Your task to perform on an android device: turn on priority inbox in the gmail app Image 0: 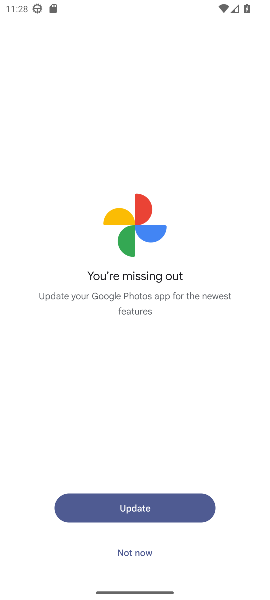
Step 0: press home button
Your task to perform on an android device: turn on priority inbox in the gmail app Image 1: 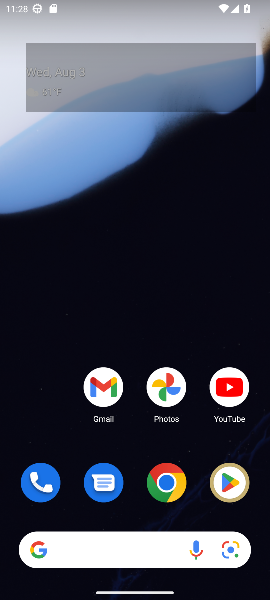
Step 1: drag from (135, 523) to (88, 97)
Your task to perform on an android device: turn on priority inbox in the gmail app Image 2: 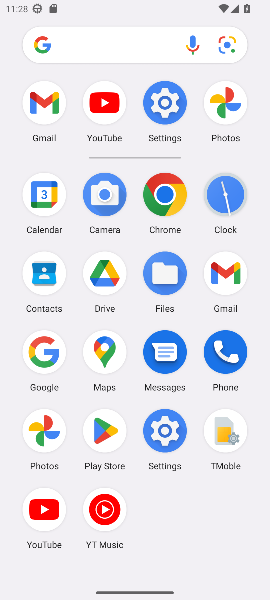
Step 2: click (41, 116)
Your task to perform on an android device: turn on priority inbox in the gmail app Image 3: 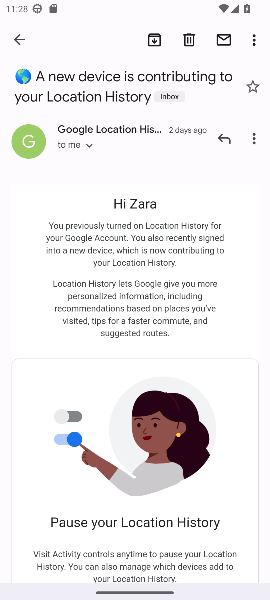
Step 3: click (20, 48)
Your task to perform on an android device: turn on priority inbox in the gmail app Image 4: 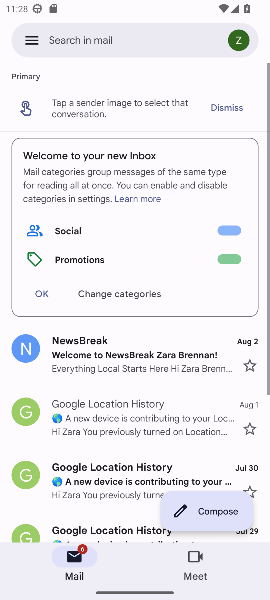
Step 4: click (20, 48)
Your task to perform on an android device: turn on priority inbox in the gmail app Image 5: 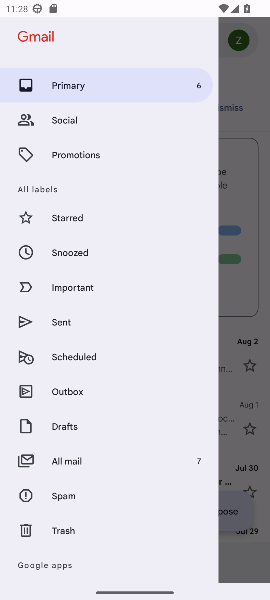
Step 5: drag from (88, 553) to (92, 326)
Your task to perform on an android device: turn on priority inbox in the gmail app Image 6: 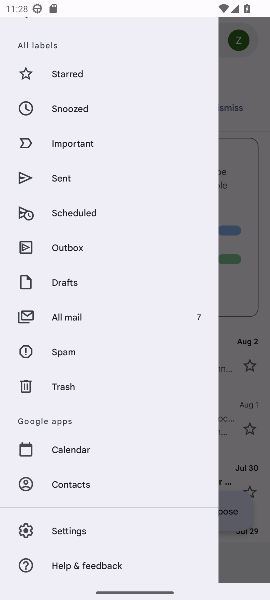
Step 6: click (78, 533)
Your task to perform on an android device: turn on priority inbox in the gmail app Image 7: 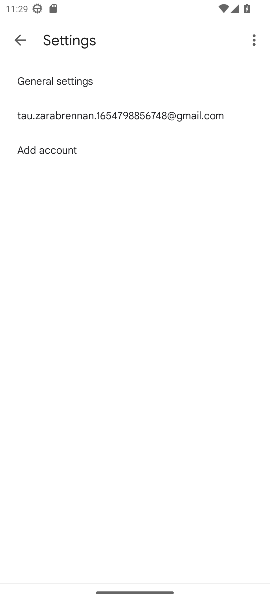
Step 7: task complete